Your task to perform on an android device: change keyboard looks Image 0: 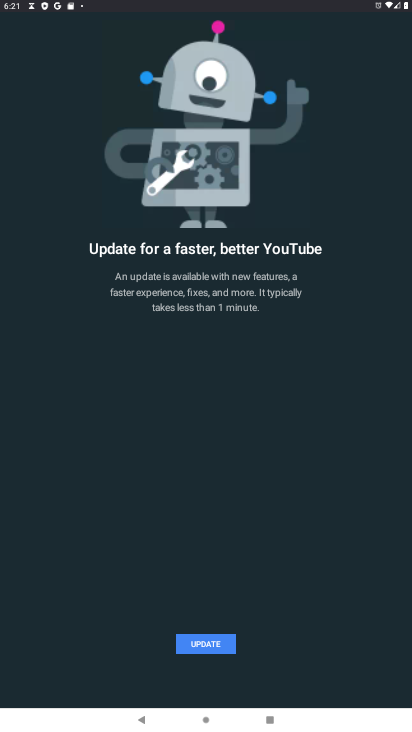
Step 0: press home button
Your task to perform on an android device: change keyboard looks Image 1: 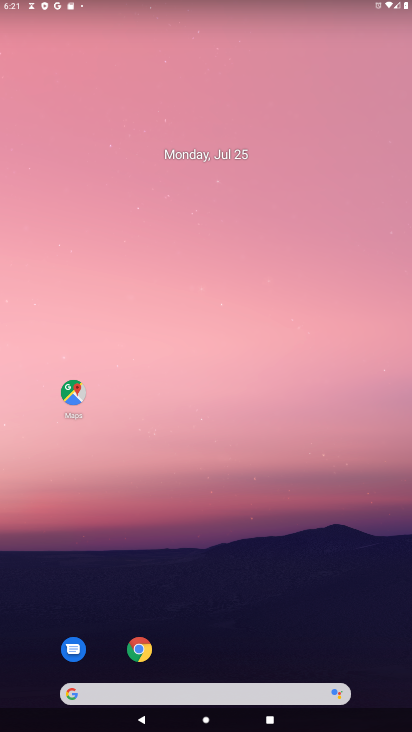
Step 1: drag from (298, 594) to (330, 0)
Your task to perform on an android device: change keyboard looks Image 2: 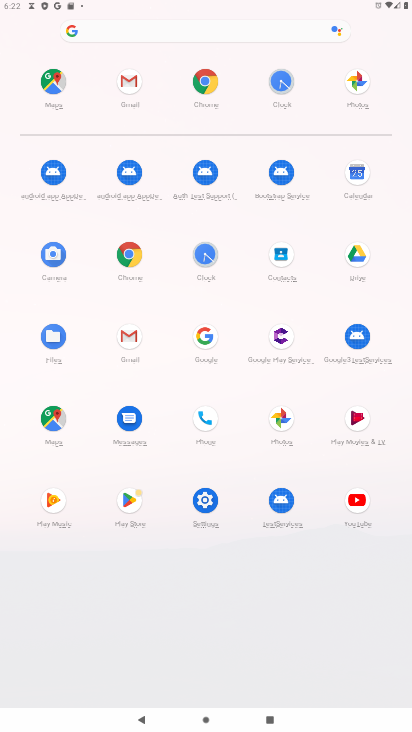
Step 2: click (214, 500)
Your task to perform on an android device: change keyboard looks Image 3: 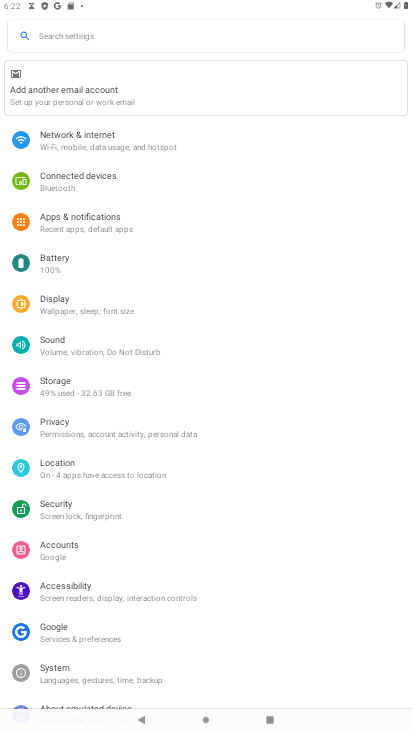
Step 3: drag from (127, 676) to (192, 236)
Your task to perform on an android device: change keyboard looks Image 4: 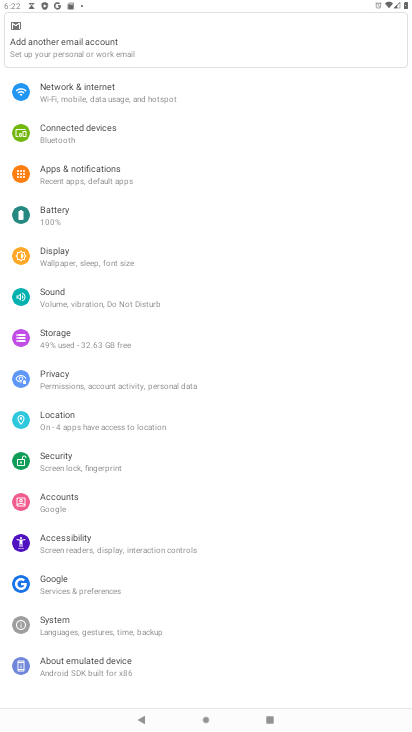
Step 4: click (92, 617)
Your task to perform on an android device: change keyboard looks Image 5: 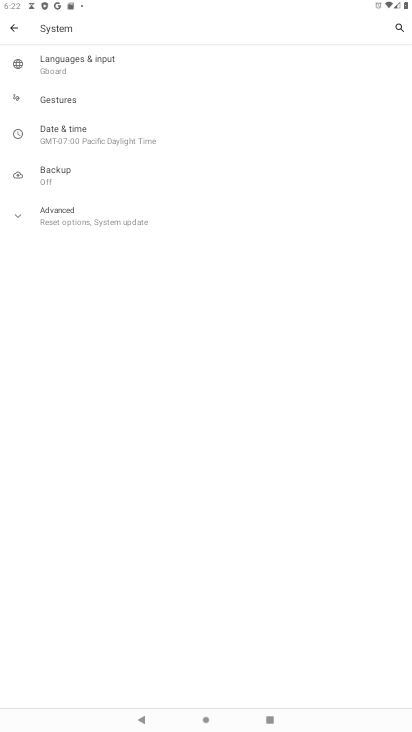
Step 5: click (87, 55)
Your task to perform on an android device: change keyboard looks Image 6: 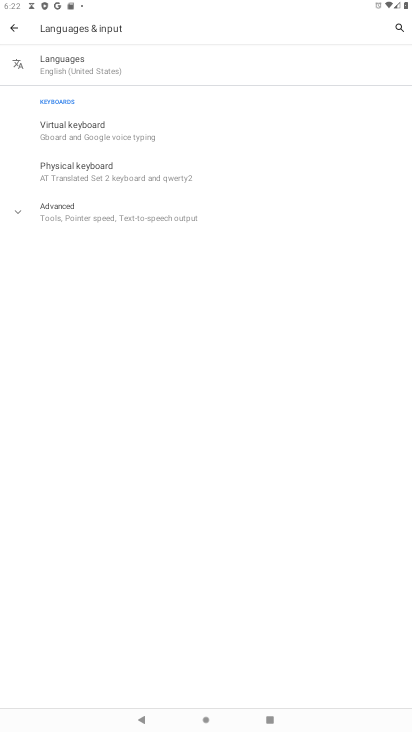
Step 6: click (112, 70)
Your task to perform on an android device: change keyboard looks Image 7: 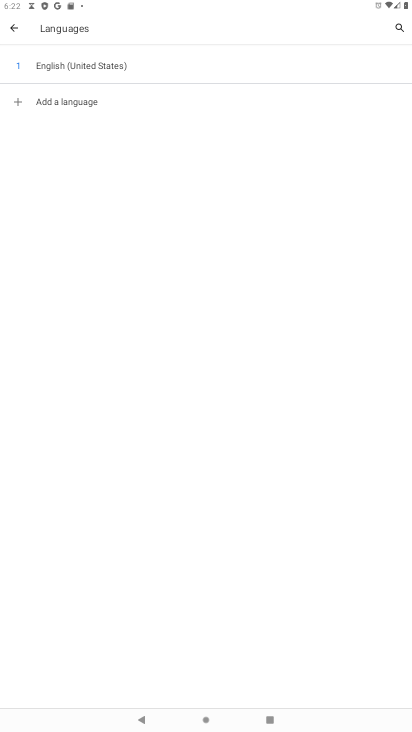
Step 7: press back button
Your task to perform on an android device: change keyboard looks Image 8: 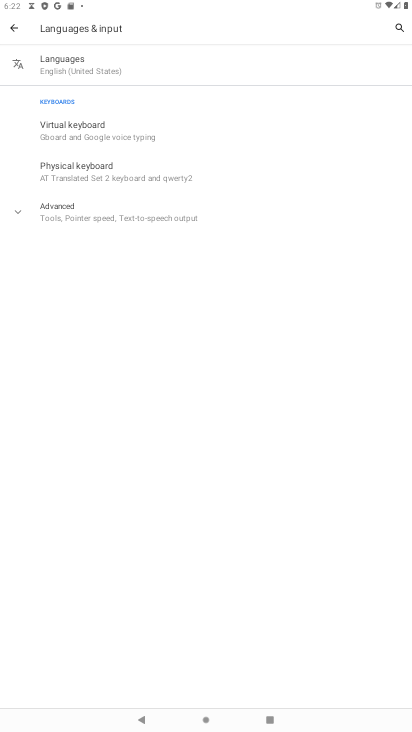
Step 8: click (104, 137)
Your task to perform on an android device: change keyboard looks Image 9: 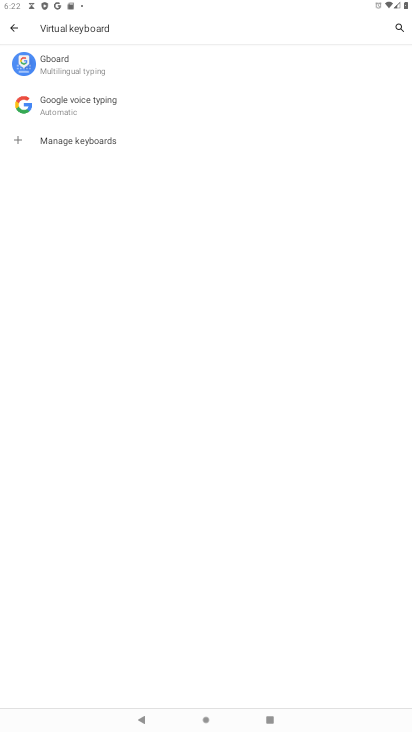
Step 9: click (75, 72)
Your task to perform on an android device: change keyboard looks Image 10: 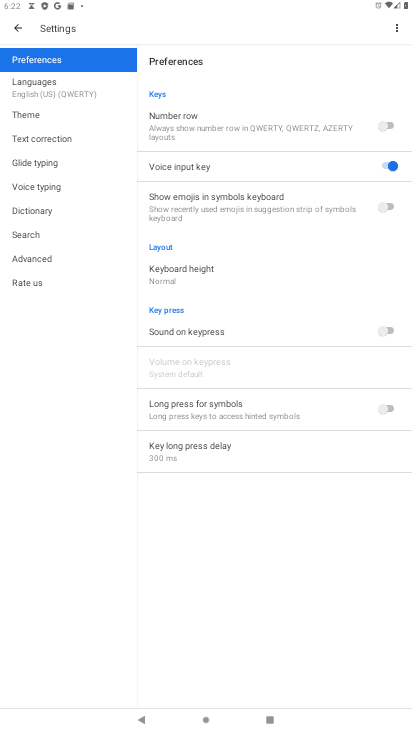
Step 10: click (56, 102)
Your task to perform on an android device: change keyboard looks Image 11: 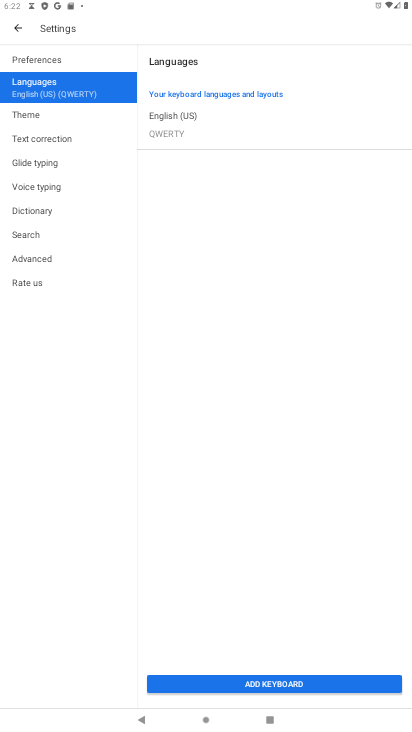
Step 11: click (49, 111)
Your task to perform on an android device: change keyboard looks Image 12: 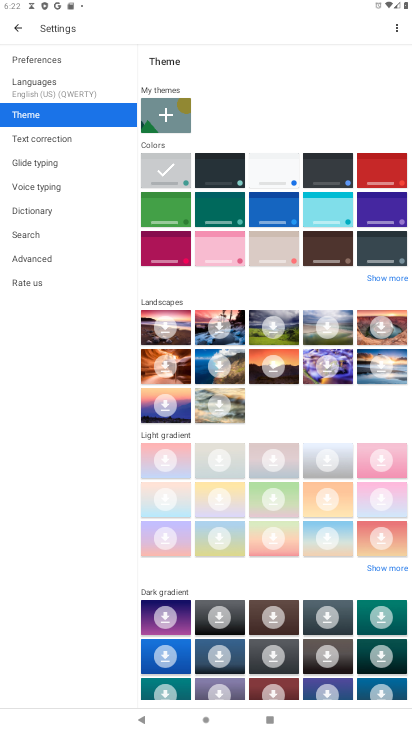
Step 12: click (315, 247)
Your task to perform on an android device: change keyboard looks Image 13: 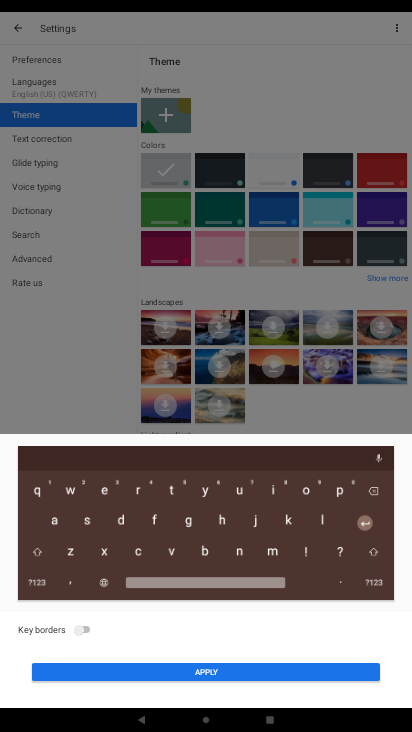
Step 13: click (188, 673)
Your task to perform on an android device: change keyboard looks Image 14: 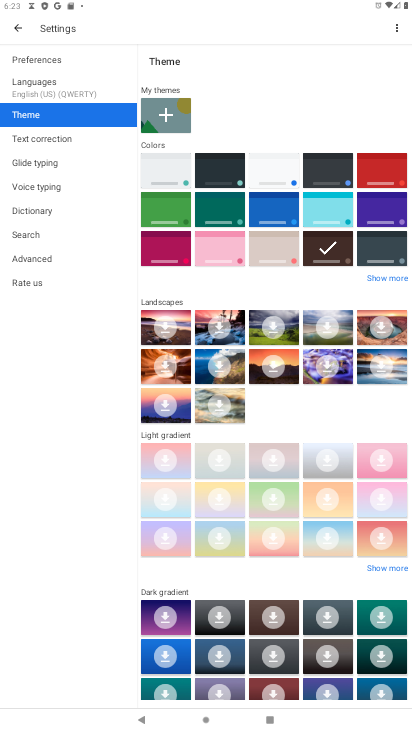
Step 14: task complete